Your task to perform on an android device: Open accessibility settings Image 0: 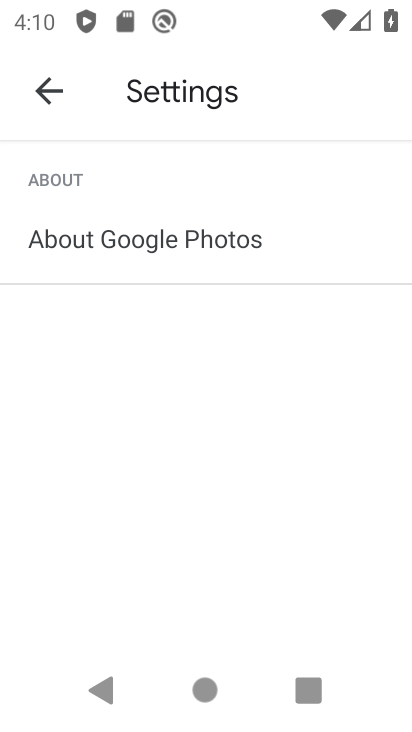
Step 0: press home button
Your task to perform on an android device: Open accessibility settings Image 1: 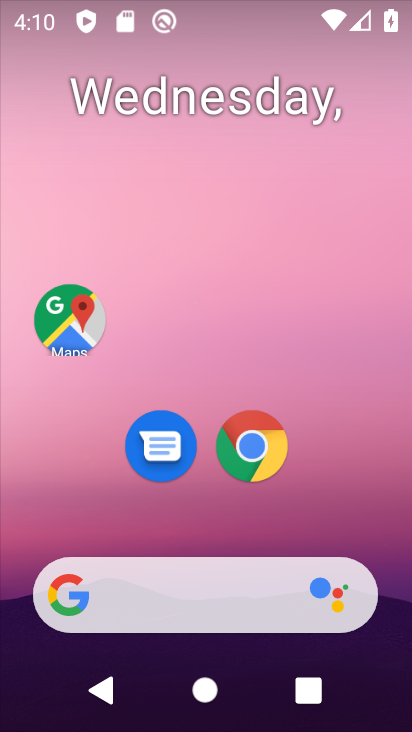
Step 1: drag from (214, 638) to (207, 69)
Your task to perform on an android device: Open accessibility settings Image 2: 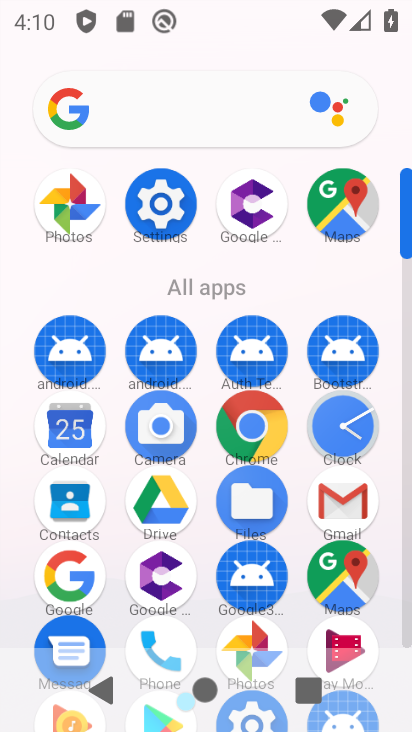
Step 2: click (152, 209)
Your task to perform on an android device: Open accessibility settings Image 3: 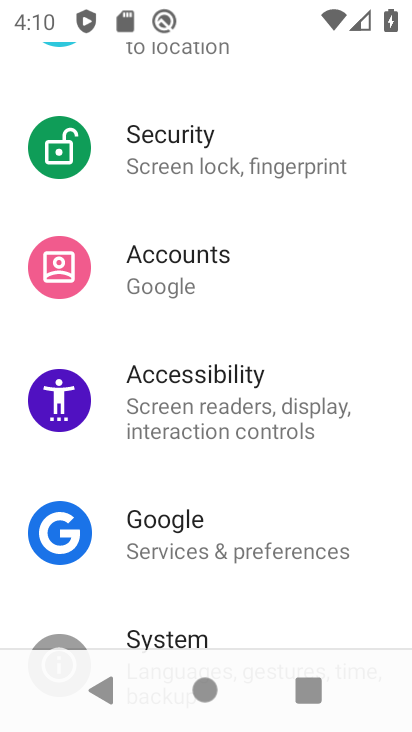
Step 3: click (139, 416)
Your task to perform on an android device: Open accessibility settings Image 4: 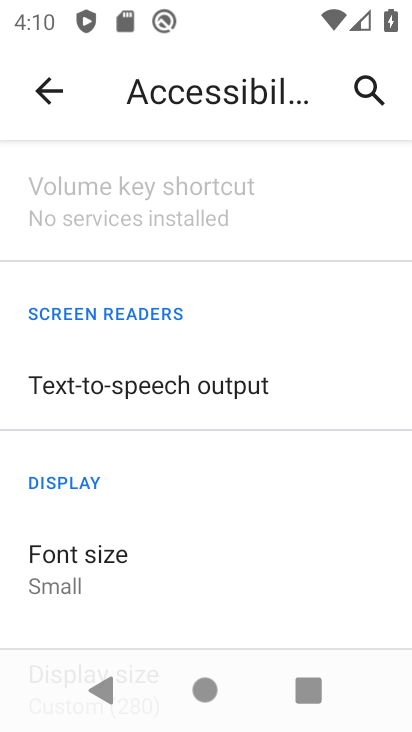
Step 4: task complete